Your task to perform on an android device: turn on sleep mode Image 0: 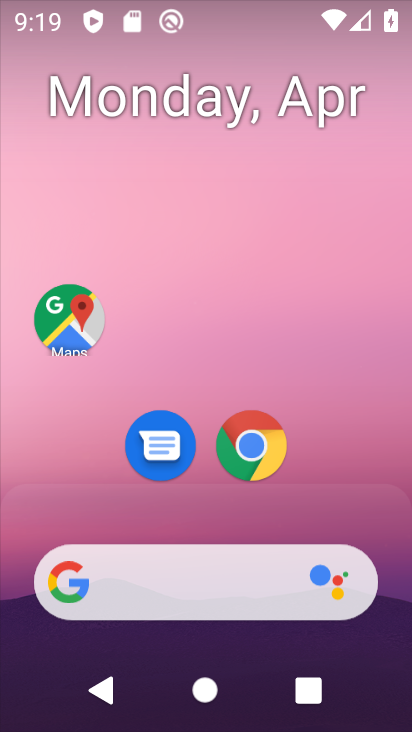
Step 0: click (220, 57)
Your task to perform on an android device: turn on sleep mode Image 1: 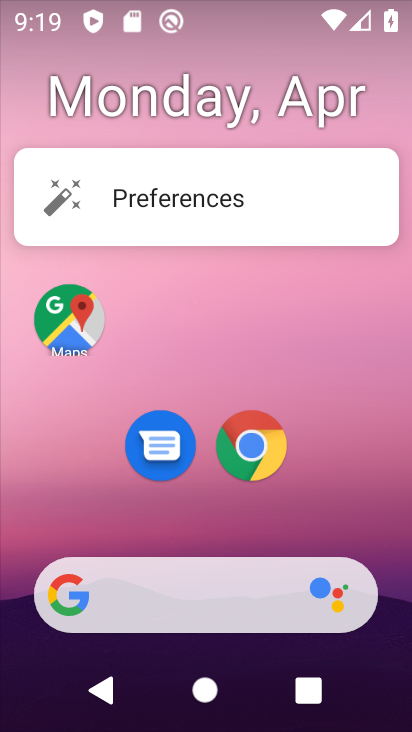
Step 1: drag from (209, 516) to (263, 58)
Your task to perform on an android device: turn on sleep mode Image 2: 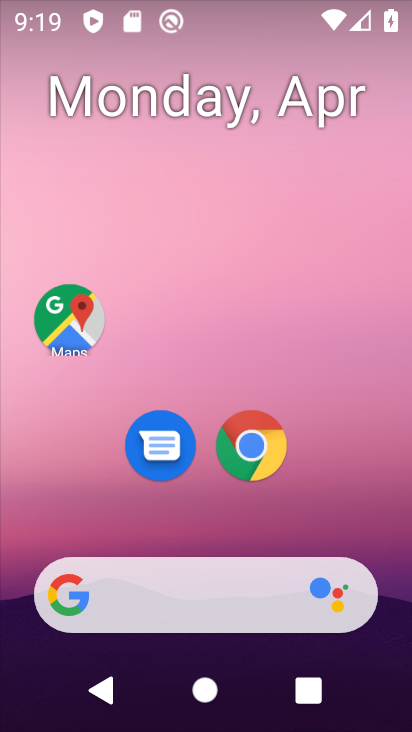
Step 2: drag from (208, 512) to (225, 126)
Your task to perform on an android device: turn on sleep mode Image 3: 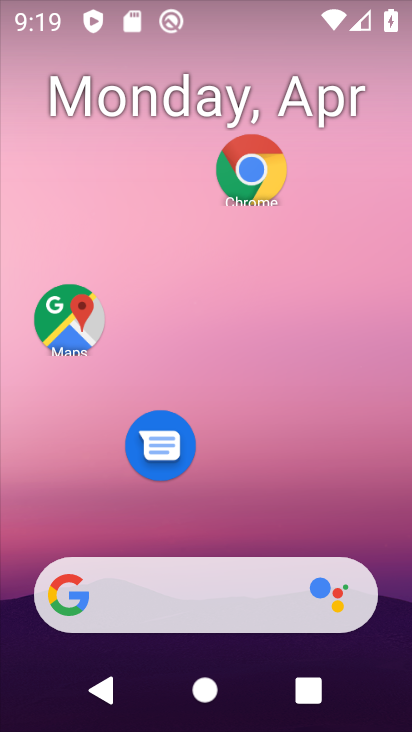
Step 3: drag from (191, 525) to (221, 55)
Your task to perform on an android device: turn on sleep mode Image 4: 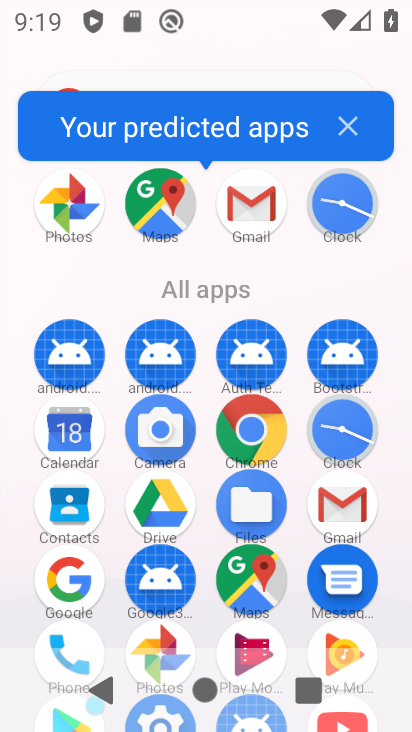
Step 4: drag from (197, 579) to (254, 251)
Your task to perform on an android device: turn on sleep mode Image 5: 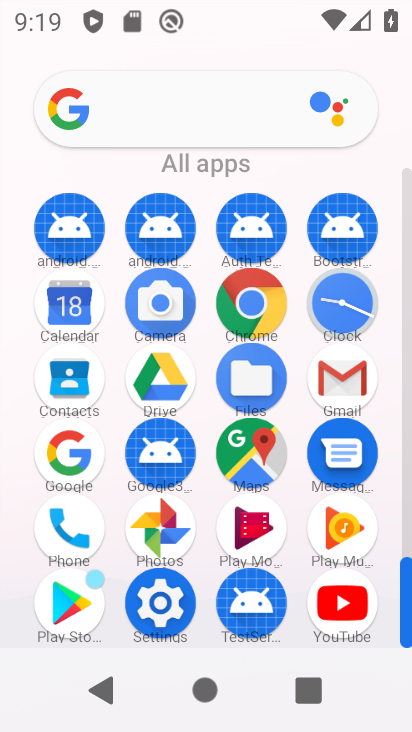
Step 5: click (148, 590)
Your task to perform on an android device: turn on sleep mode Image 6: 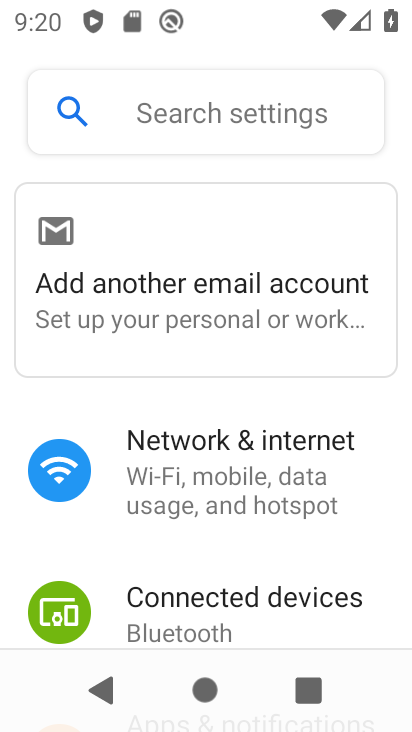
Step 6: drag from (107, 511) to (156, 182)
Your task to perform on an android device: turn on sleep mode Image 7: 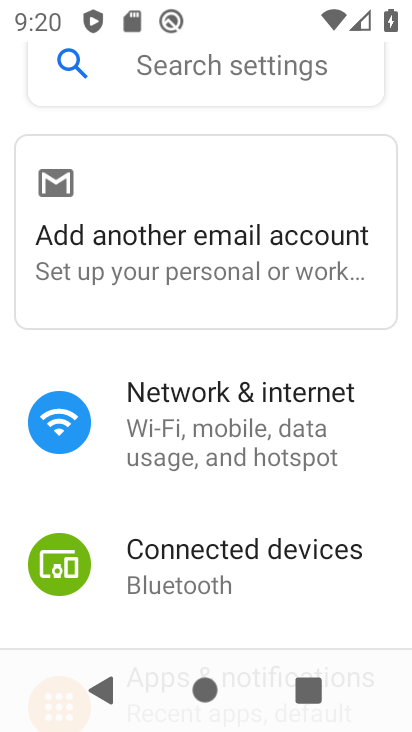
Step 7: drag from (85, 603) to (154, 247)
Your task to perform on an android device: turn on sleep mode Image 8: 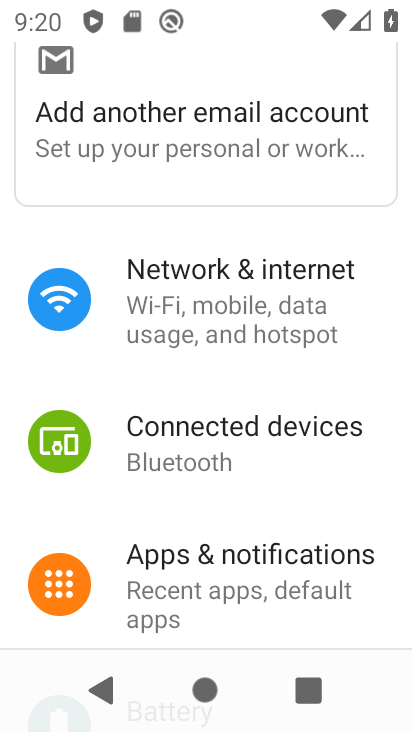
Step 8: drag from (112, 587) to (167, 258)
Your task to perform on an android device: turn on sleep mode Image 9: 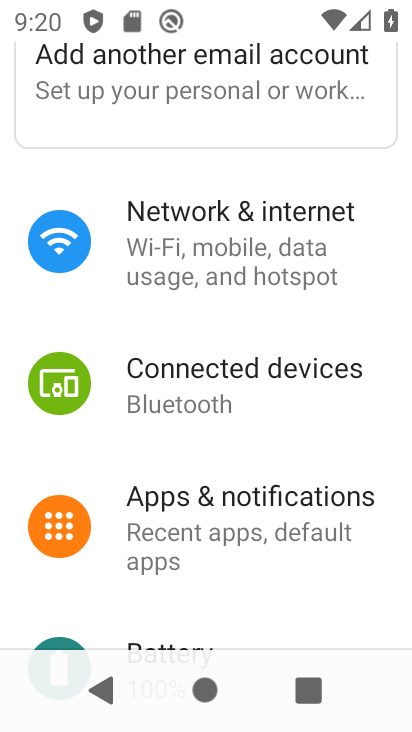
Step 9: drag from (119, 571) to (130, 201)
Your task to perform on an android device: turn on sleep mode Image 10: 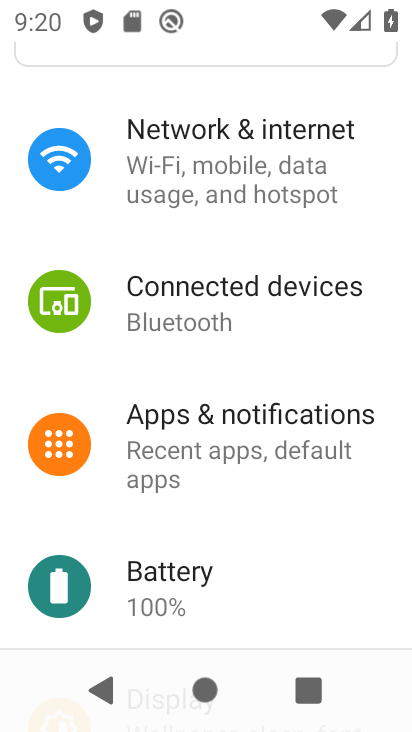
Step 10: drag from (109, 562) to (162, 276)
Your task to perform on an android device: turn on sleep mode Image 11: 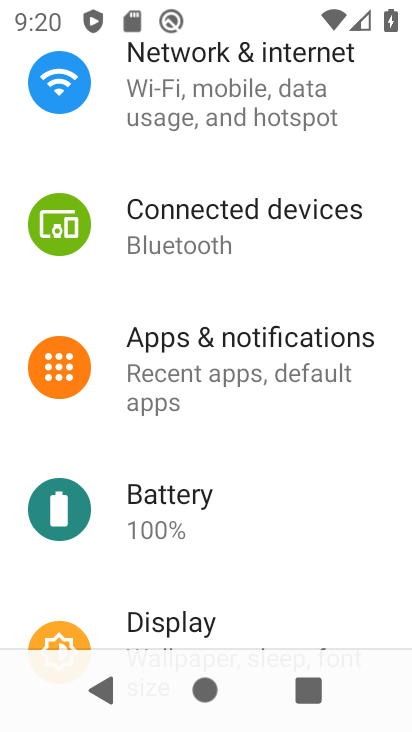
Step 11: click (207, 603)
Your task to perform on an android device: turn on sleep mode Image 12: 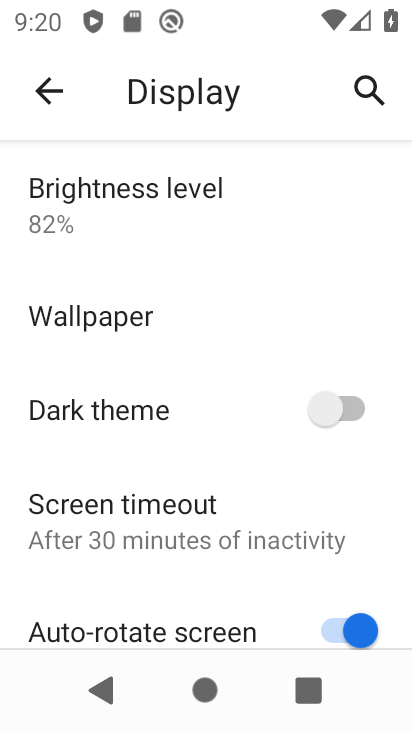
Step 12: click (147, 505)
Your task to perform on an android device: turn on sleep mode Image 13: 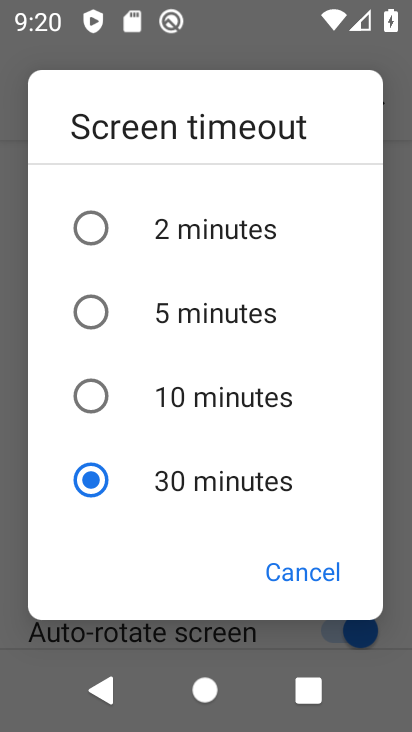
Step 13: click (183, 313)
Your task to perform on an android device: turn on sleep mode Image 14: 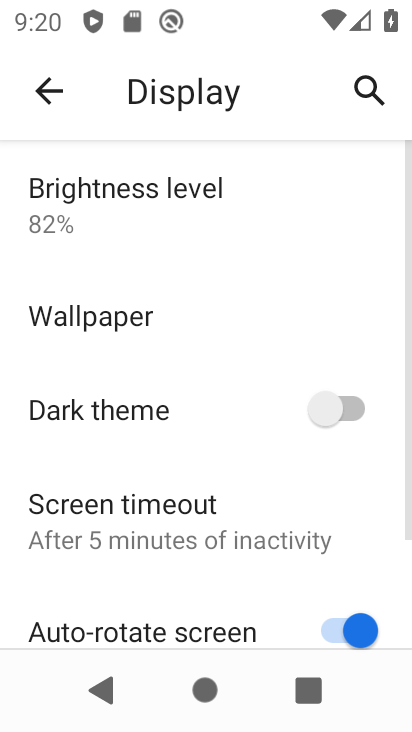
Step 14: task complete